Your task to perform on an android device: change alarm snooze length Image 0: 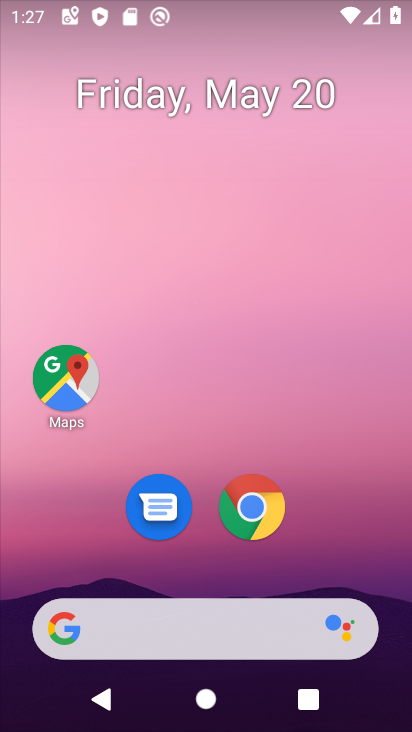
Step 0: drag from (216, 724) to (223, 168)
Your task to perform on an android device: change alarm snooze length Image 1: 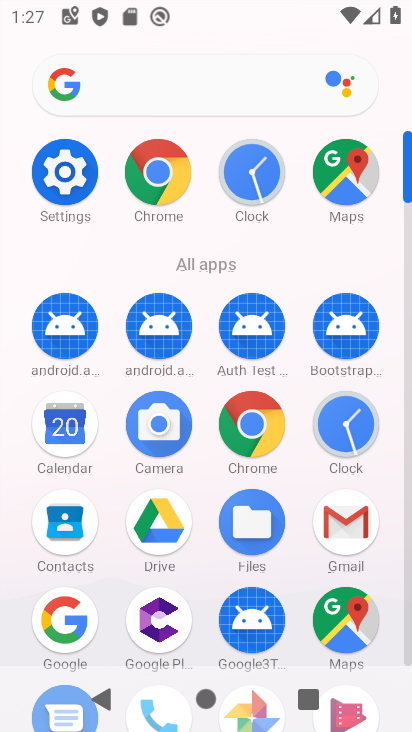
Step 1: click (350, 415)
Your task to perform on an android device: change alarm snooze length Image 2: 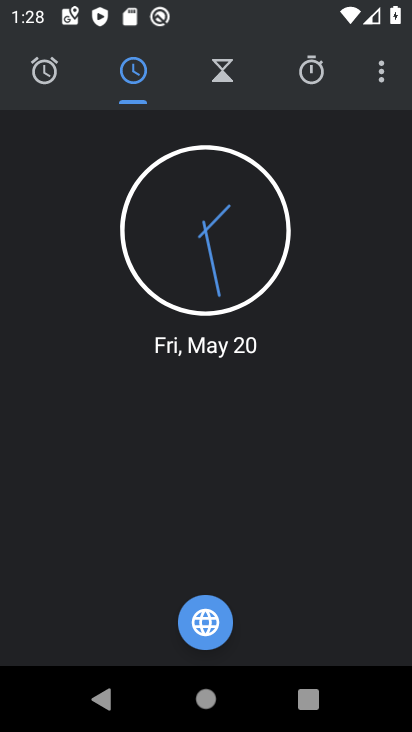
Step 2: click (383, 75)
Your task to perform on an android device: change alarm snooze length Image 3: 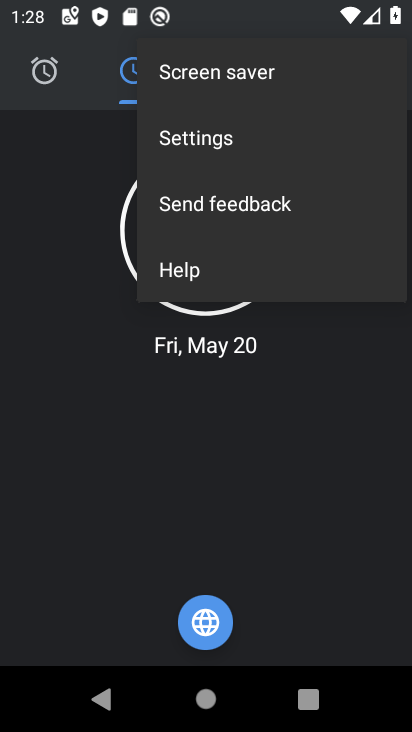
Step 3: click (214, 134)
Your task to perform on an android device: change alarm snooze length Image 4: 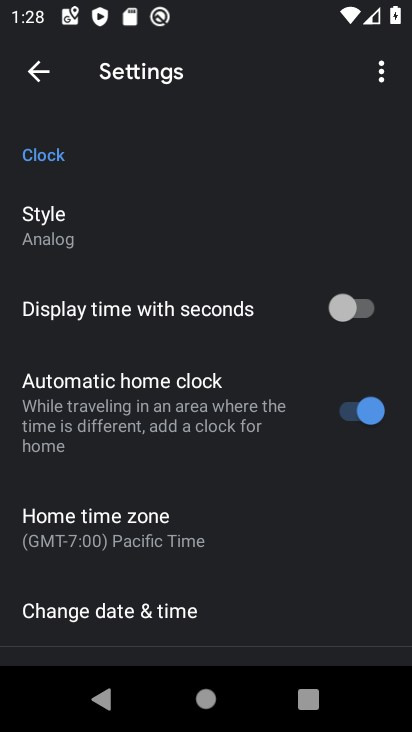
Step 4: drag from (142, 581) to (142, 110)
Your task to perform on an android device: change alarm snooze length Image 5: 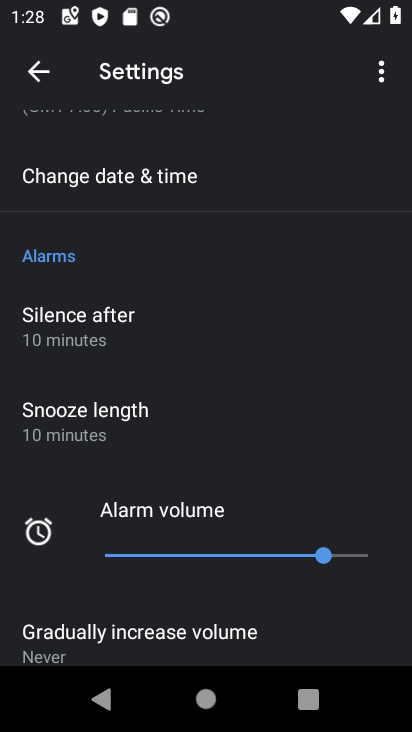
Step 5: click (108, 424)
Your task to perform on an android device: change alarm snooze length Image 6: 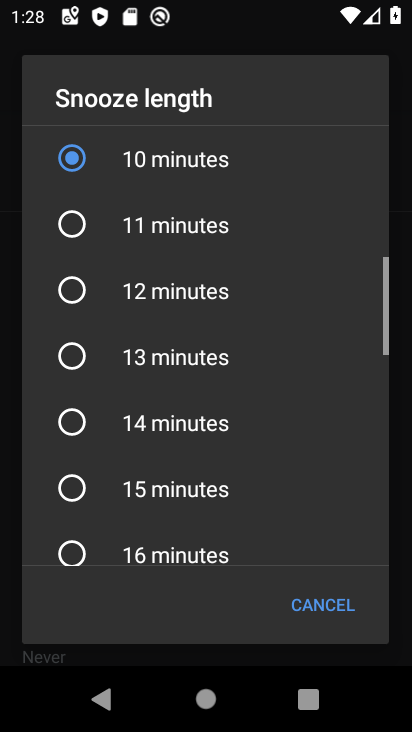
Step 6: click (68, 414)
Your task to perform on an android device: change alarm snooze length Image 7: 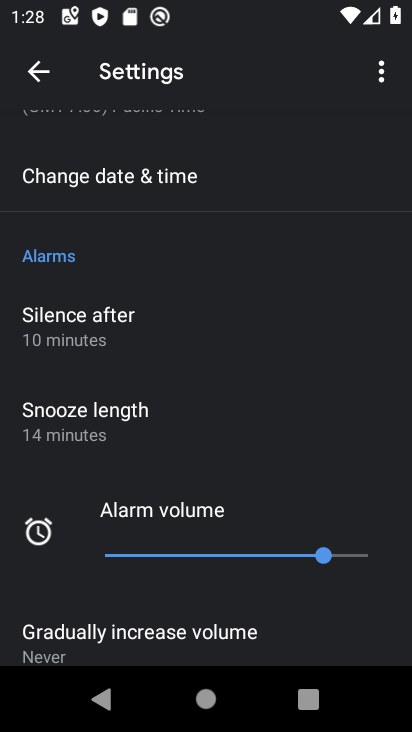
Step 7: task complete